Your task to perform on an android device: turn notification dots off Image 0: 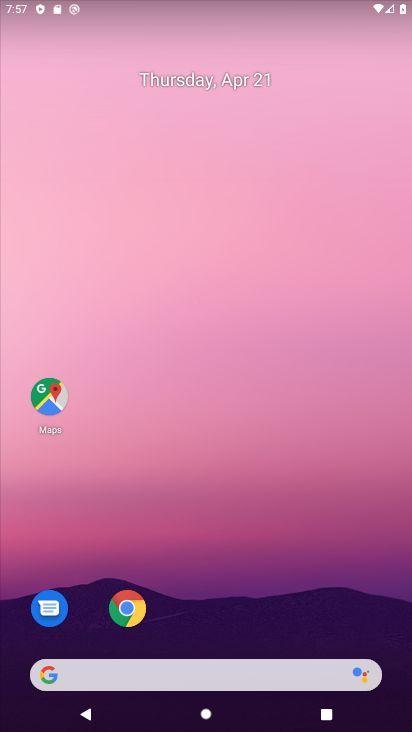
Step 0: drag from (210, 618) to (269, 233)
Your task to perform on an android device: turn notification dots off Image 1: 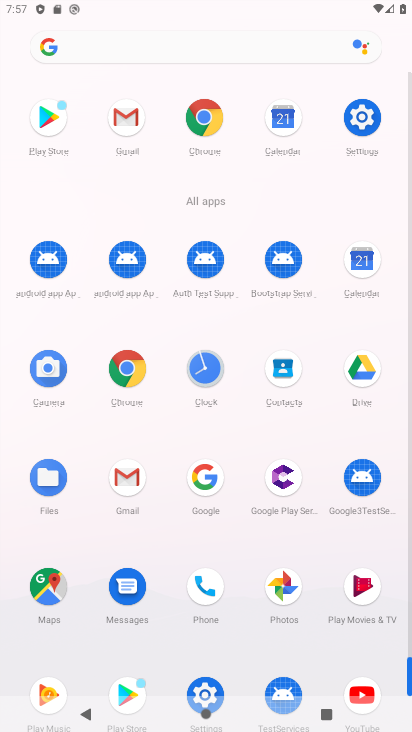
Step 1: click (363, 130)
Your task to perform on an android device: turn notification dots off Image 2: 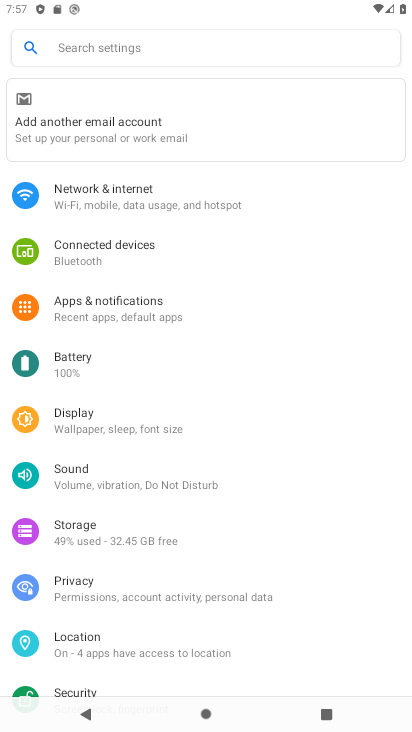
Step 2: drag from (120, 297) to (141, 262)
Your task to perform on an android device: turn notification dots off Image 3: 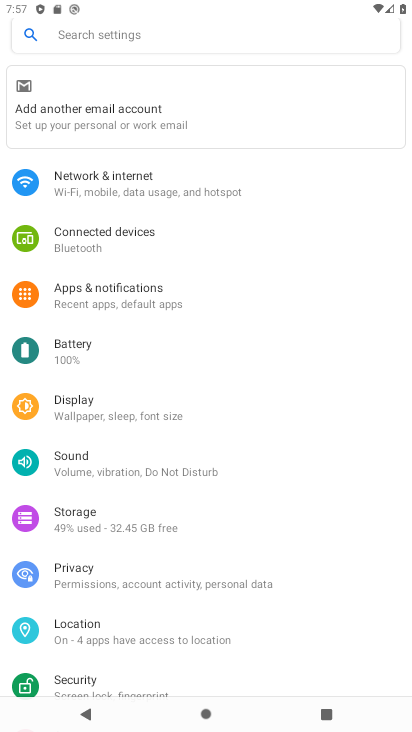
Step 3: click (133, 300)
Your task to perform on an android device: turn notification dots off Image 4: 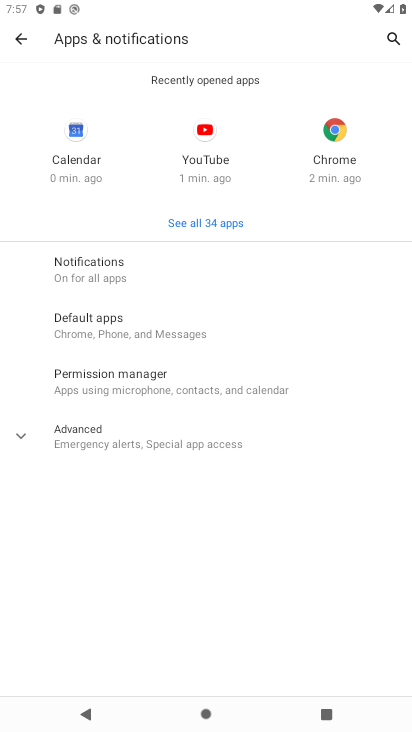
Step 4: click (100, 282)
Your task to perform on an android device: turn notification dots off Image 5: 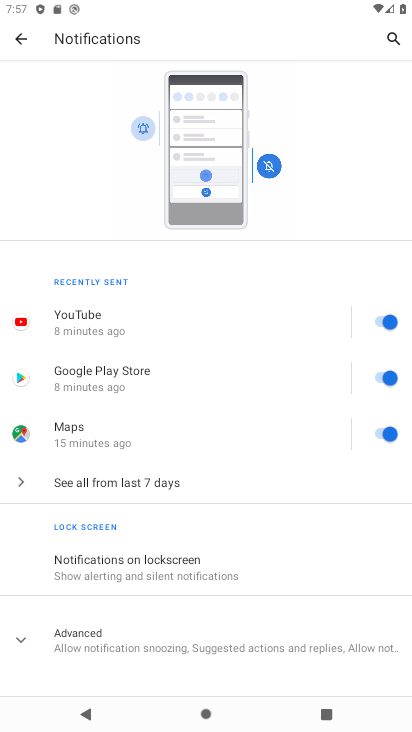
Step 5: click (123, 632)
Your task to perform on an android device: turn notification dots off Image 6: 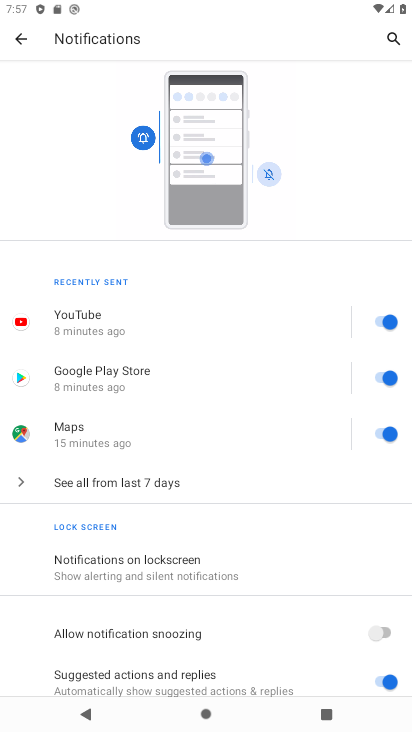
Step 6: drag from (144, 651) to (187, 397)
Your task to perform on an android device: turn notification dots off Image 7: 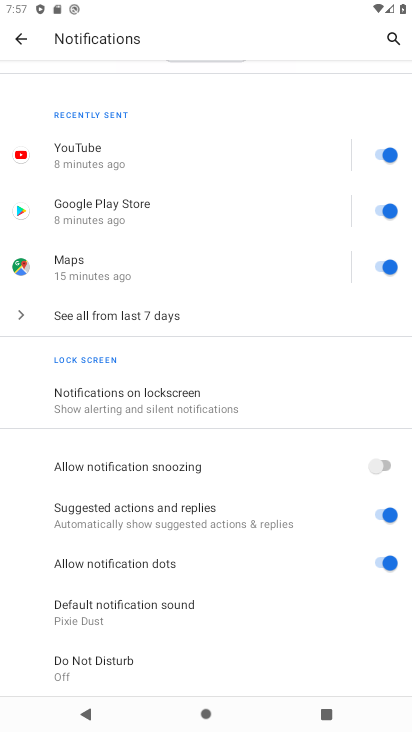
Step 7: click (379, 549)
Your task to perform on an android device: turn notification dots off Image 8: 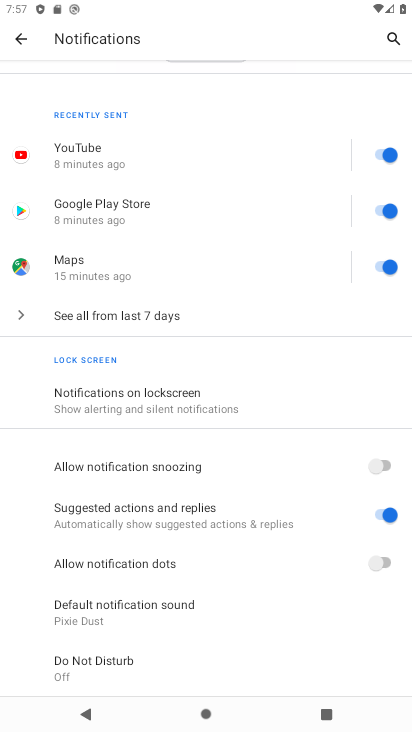
Step 8: task complete